Your task to perform on an android device: Open the web browser Image 0: 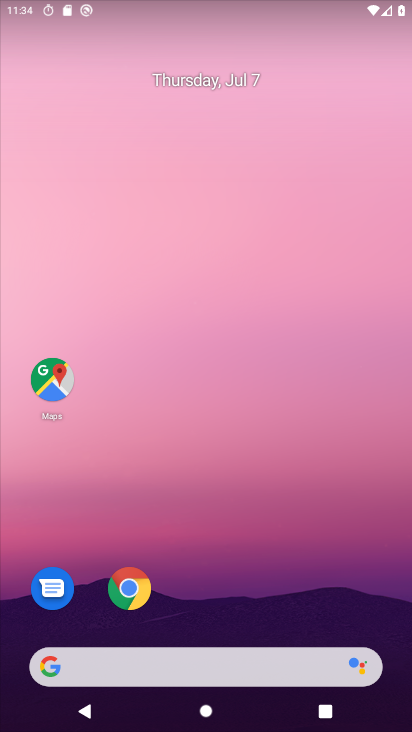
Step 0: click (140, 588)
Your task to perform on an android device: Open the web browser Image 1: 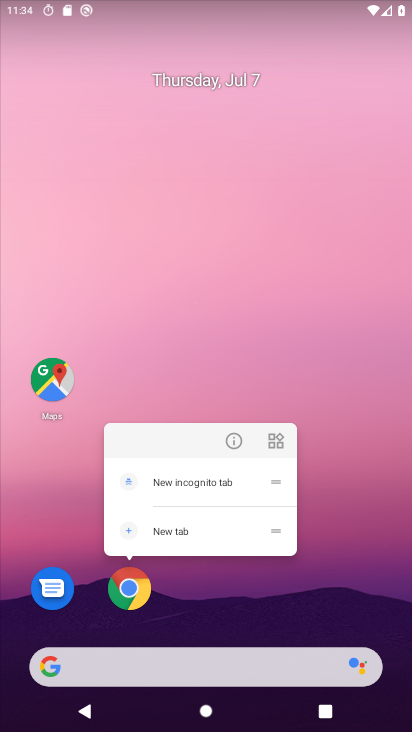
Step 1: click (120, 584)
Your task to perform on an android device: Open the web browser Image 2: 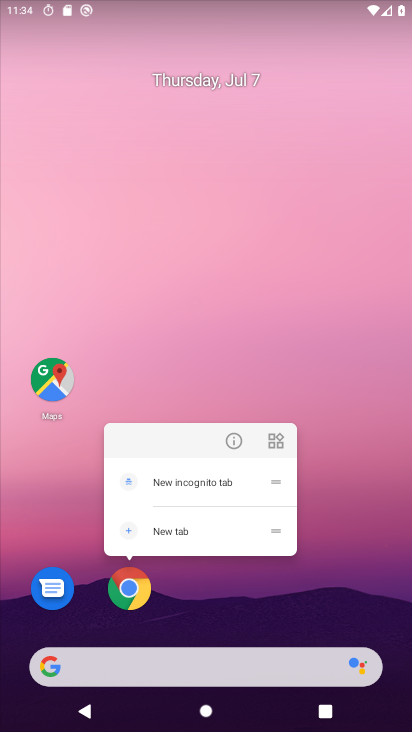
Step 2: click (129, 585)
Your task to perform on an android device: Open the web browser Image 3: 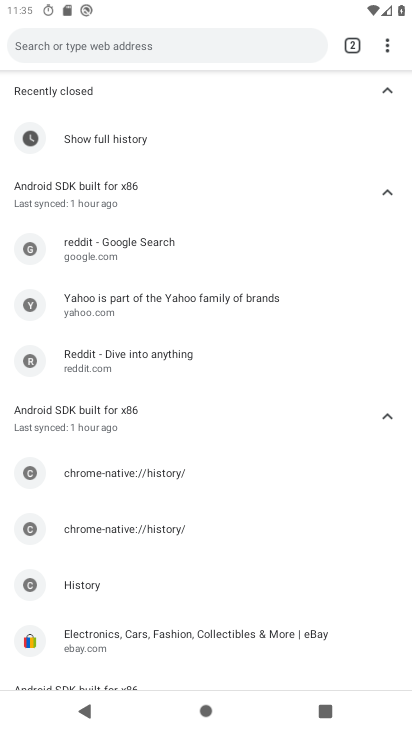
Step 3: task complete